Your task to perform on an android device: manage bookmarks in the chrome app Image 0: 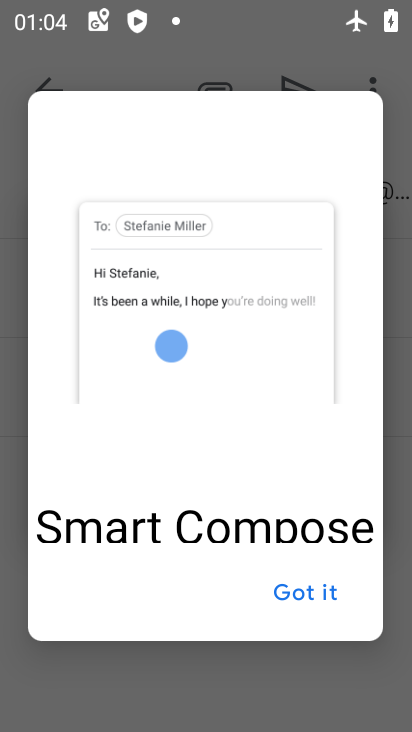
Step 0: press home button
Your task to perform on an android device: manage bookmarks in the chrome app Image 1: 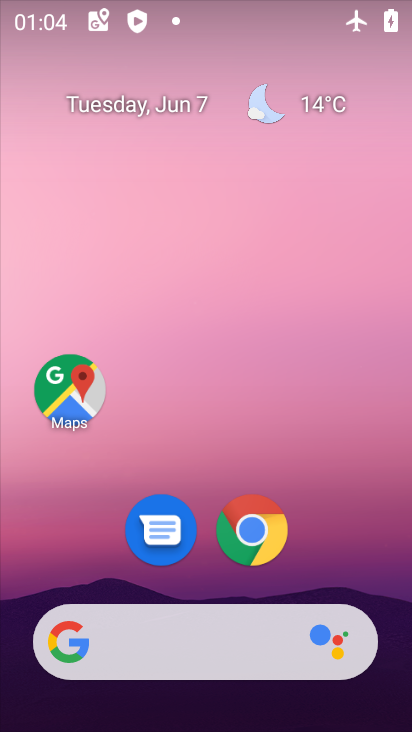
Step 1: click (241, 530)
Your task to perform on an android device: manage bookmarks in the chrome app Image 2: 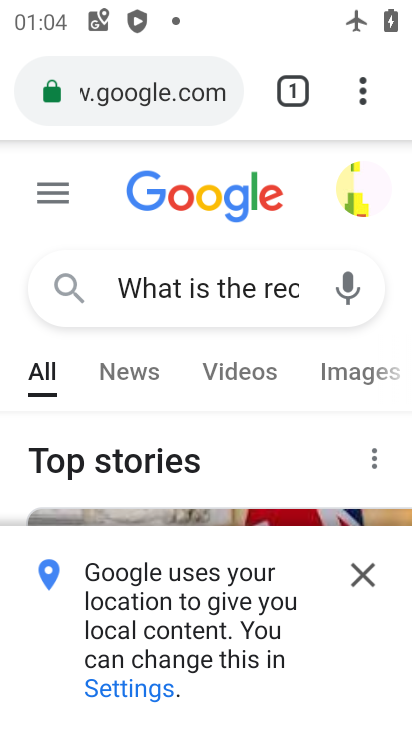
Step 2: click (360, 87)
Your task to perform on an android device: manage bookmarks in the chrome app Image 3: 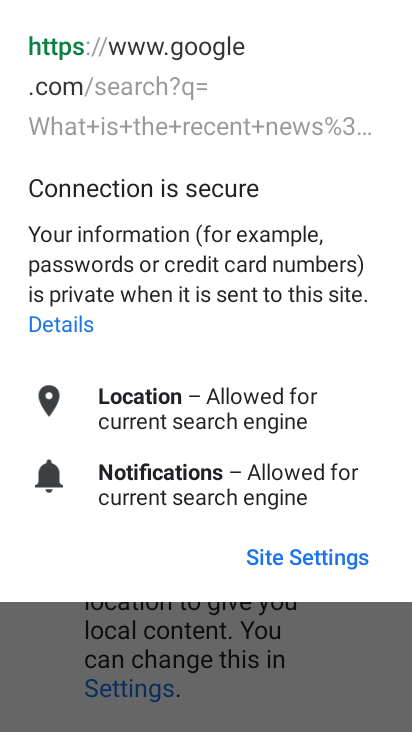
Step 3: press back button
Your task to perform on an android device: manage bookmarks in the chrome app Image 4: 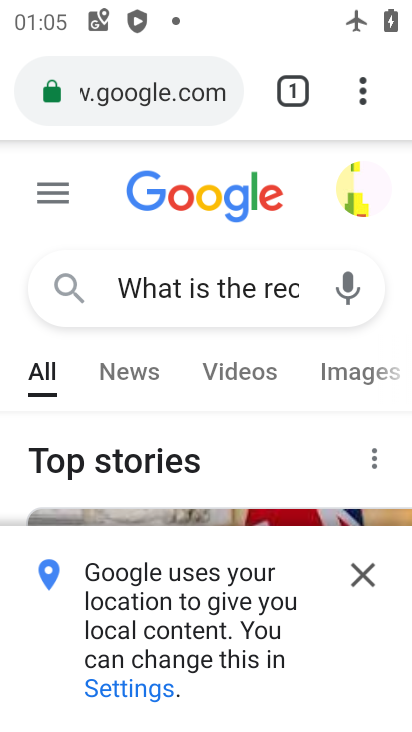
Step 4: click (362, 99)
Your task to perform on an android device: manage bookmarks in the chrome app Image 5: 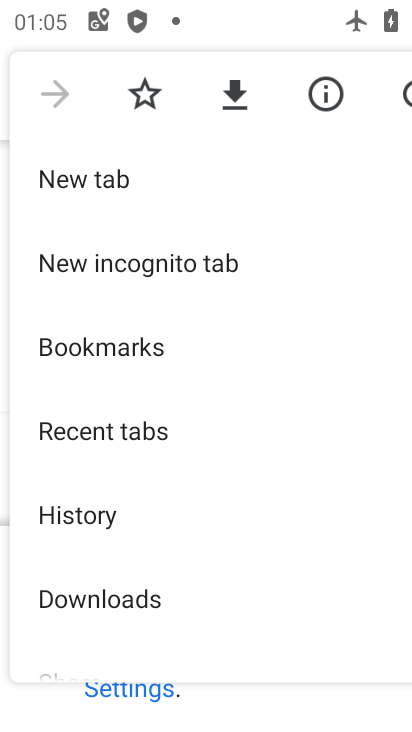
Step 5: click (79, 351)
Your task to perform on an android device: manage bookmarks in the chrome app Image 6: 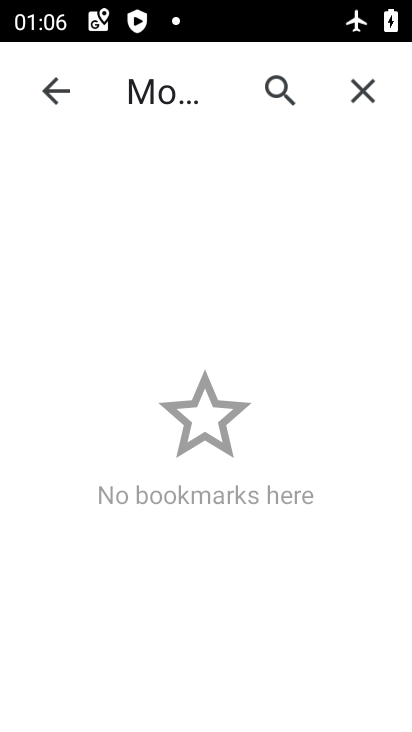
Step 6: task complete